Your task to perform on an android device: What is the recent news? Image 0: 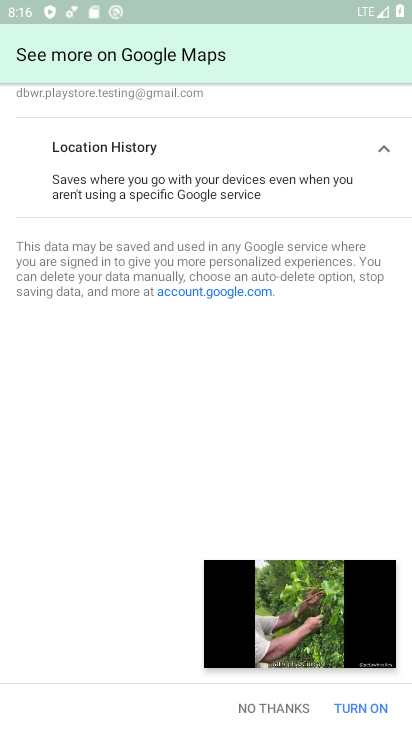
Step 0: press home button
Your task to perform on an android device: What is the recent news? Image 1: 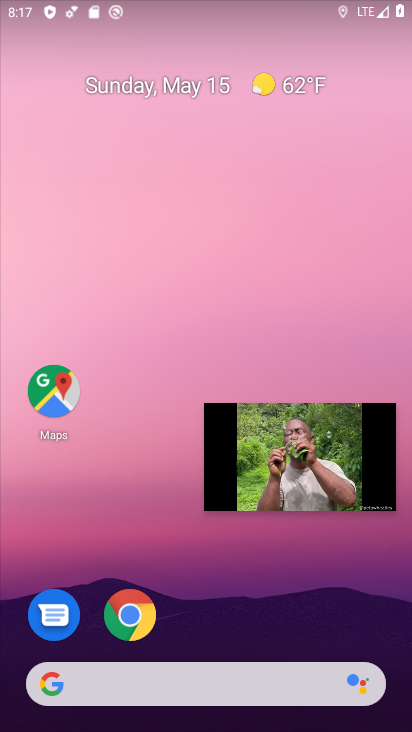
Step 1: click (315, 442)
Your task to perform on an android device: What is the recent news? Image 2: 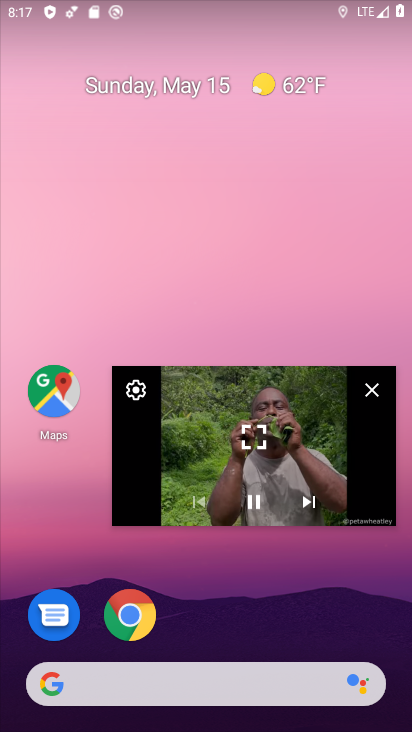
Step 2: click (371, 389)
Your task to perform on an android device: What is the recent news? Image 3: 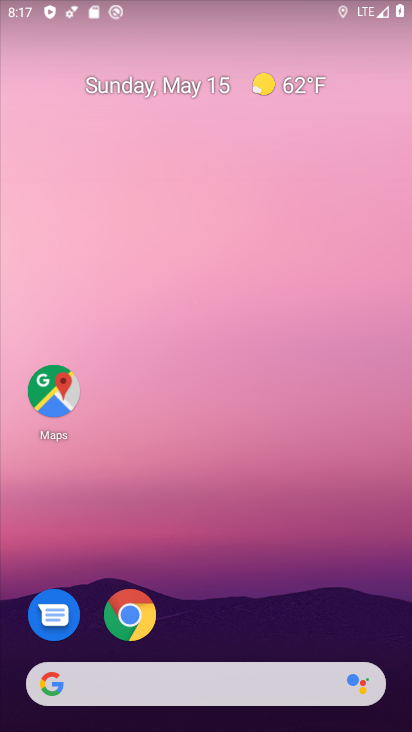
Step 3: click (249, 686)
Your task to perform on an android device: What is the recent news? Image 4: 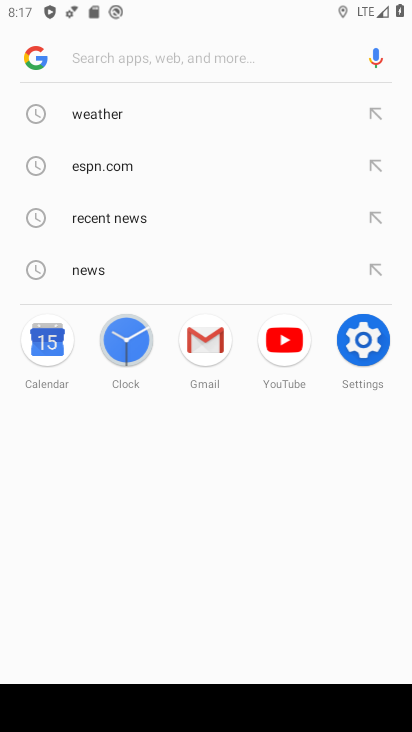
Step 4: click (139, 228)
Your task to perform on an android device: What is the recent news? Image 5: 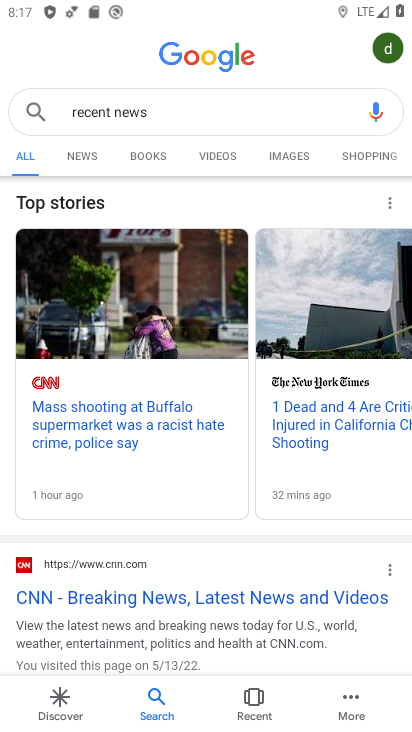
Step 5: task complete